Your task to perform on an android device: Go to Maps Image 0: 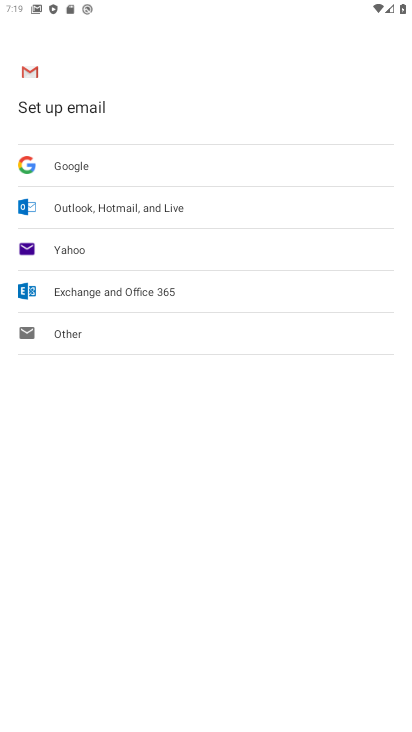
Step 0: press home button
Your task to perform on an android device: Go to Maps Image 1: 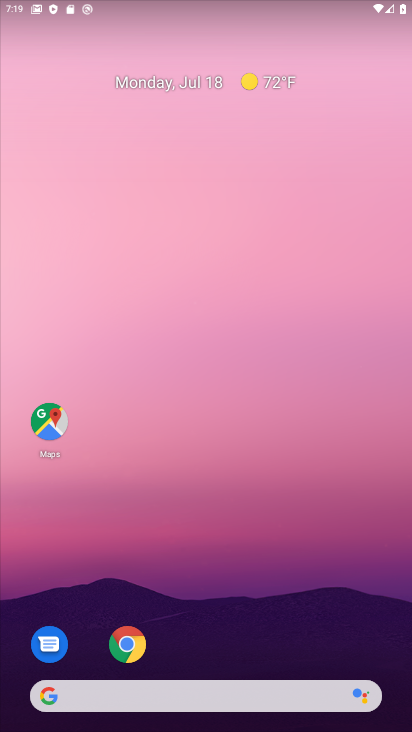
Step 1: drag from (346, 666) to (162, 116)
Your task to perform on an android device: Go to Maps Image 2: 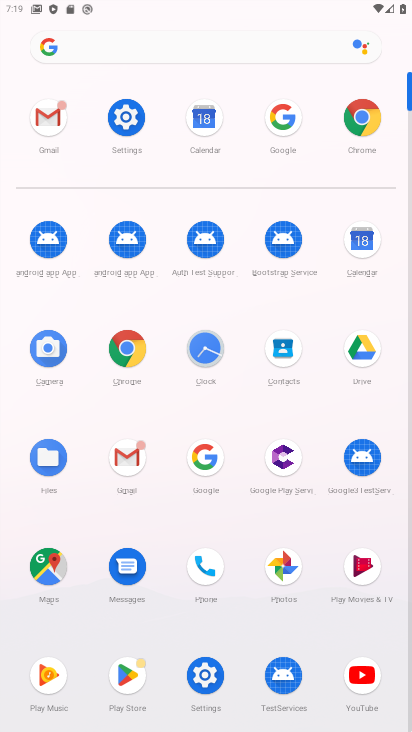
Step 2: click (50, 563)
Your task to perform on an android device: Go to Maps Image 3: 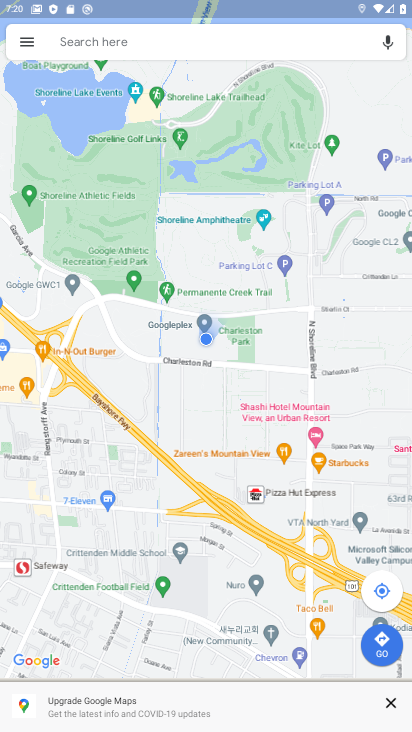
Step 3: task complete